Your task to perform on an android device: Open CNN.com Image 0: 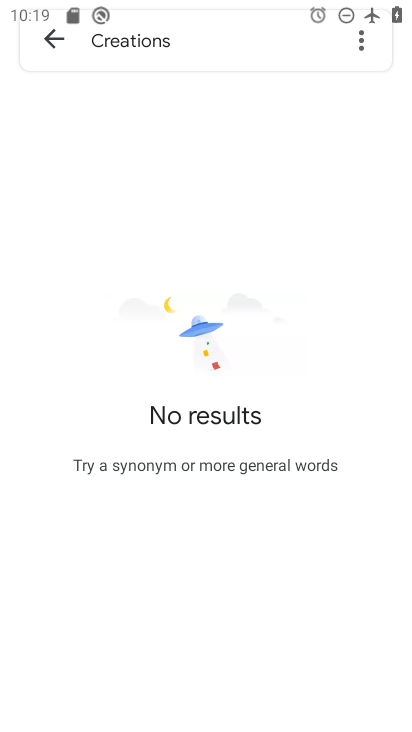
Step 0: press home button
Your task to perform on an android device: Open CNN.com Image 1: 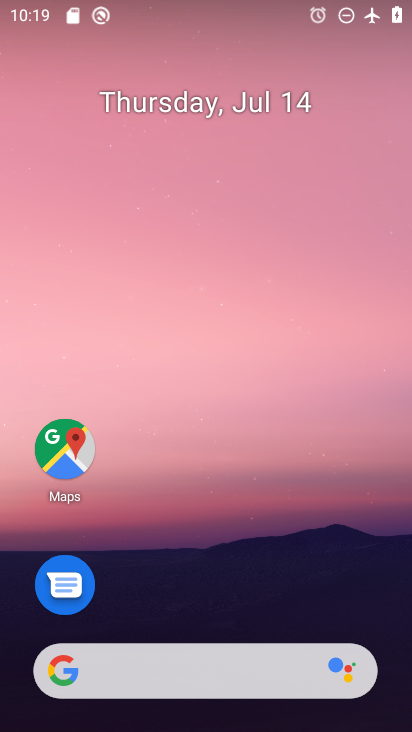
Step 1: drag from (201, 610) to (155, 181)
Your task to perform on an android device: Open CNN.com Image 2: 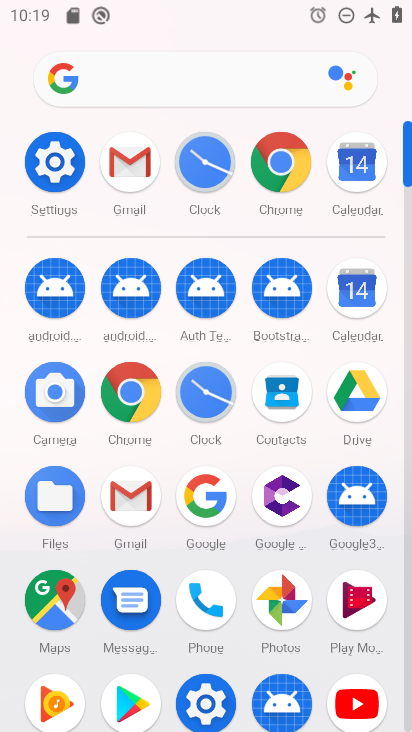
Step 2: click (269, 160)
Your task to perform on an android device: Open CNN.com Image 3: 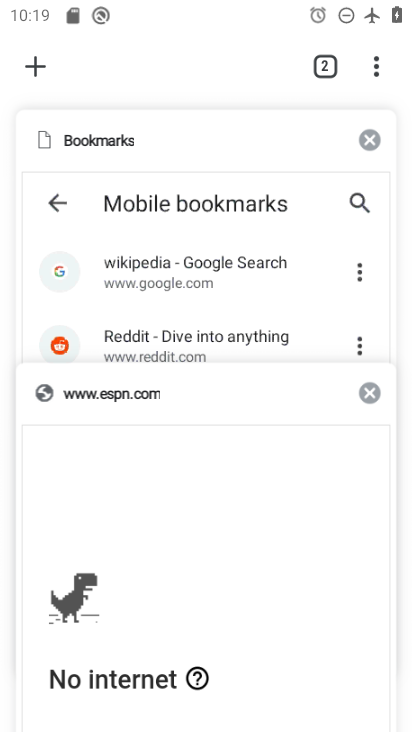
Step 3: click (36, 64)
Your task to perform on an android device: Open CNN.com Image 4: 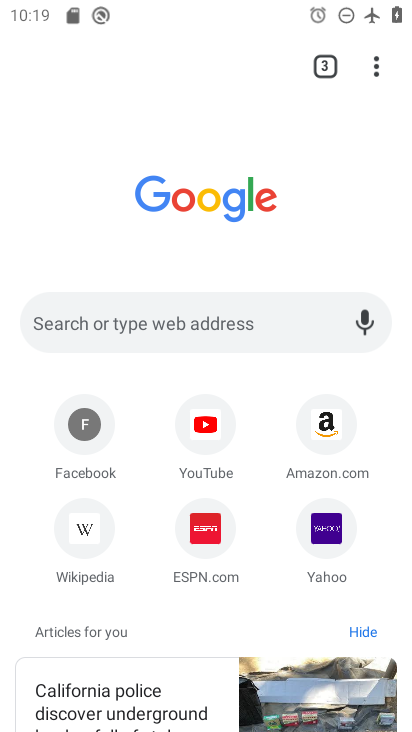
Step 4: click (202, 315)
Your task to perform on an android device: Open CNN.com Image 5: 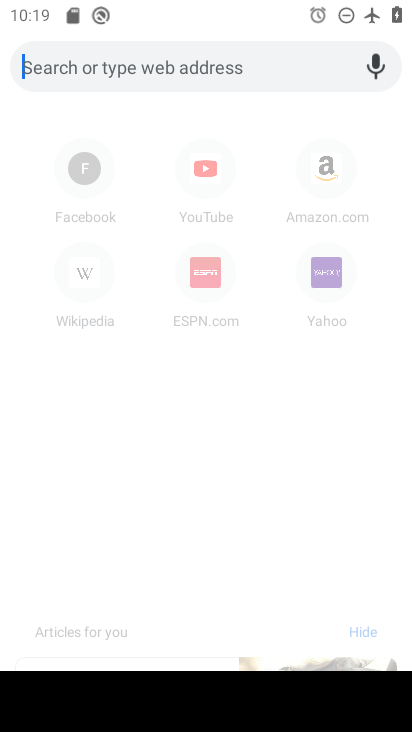
Step 5: type "cnn"
Your task to perform on an android device: Open CNN.com Image 6: 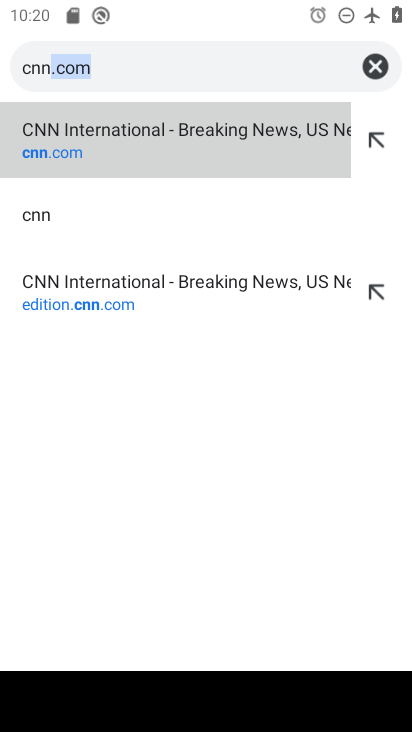
Step 6: click (107, 161)
Your task to perform on an android device: Open CNN.com Image 7: 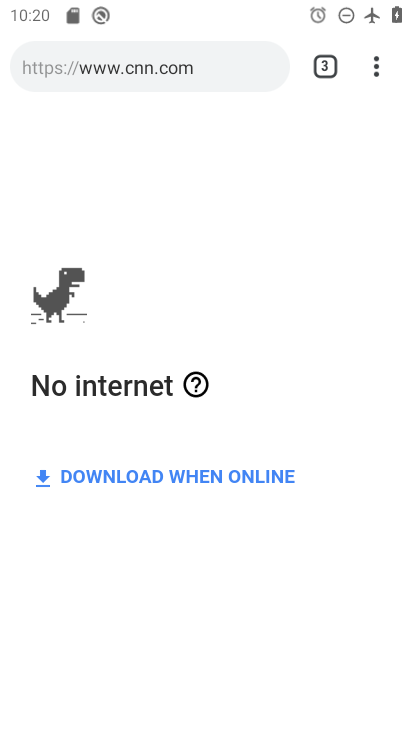
Step 7: task complete